Your task to perform on an android device: toggle improve location accuracy Image 0: 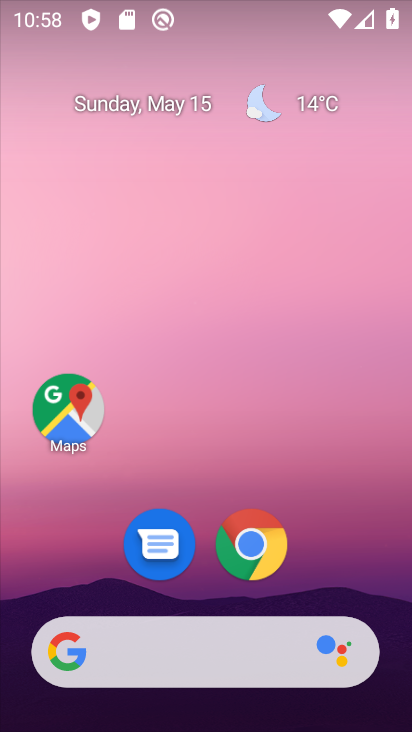
Step 0: drag from (87, 574) to (204, 122)
Your task to perform on an android device: toggle improve location accuracy Image 1: 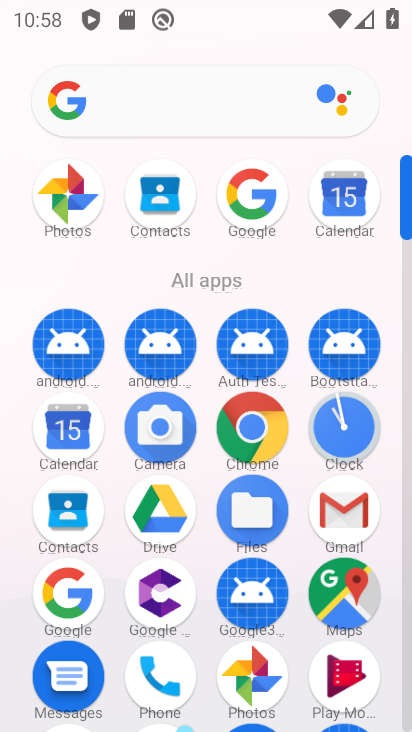
Step 1: drag from (183, 602) to (221, 365)
Your task to perform on an android device: toggle improve location accuracy Image 2: 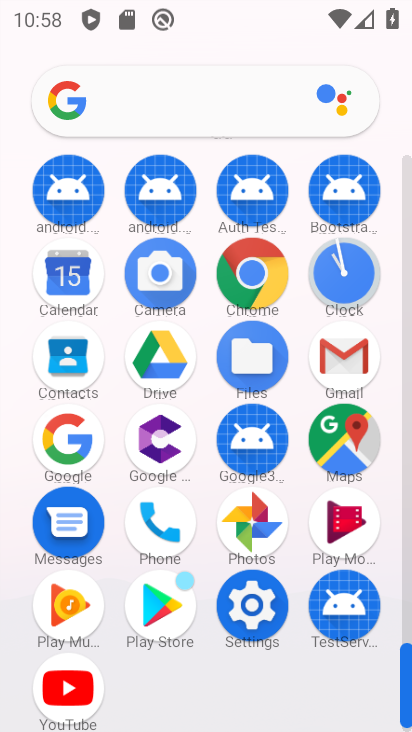
Step 2: click (265, 604)
Your task to perform on an android device: toggle improve location accuracy Image 3: 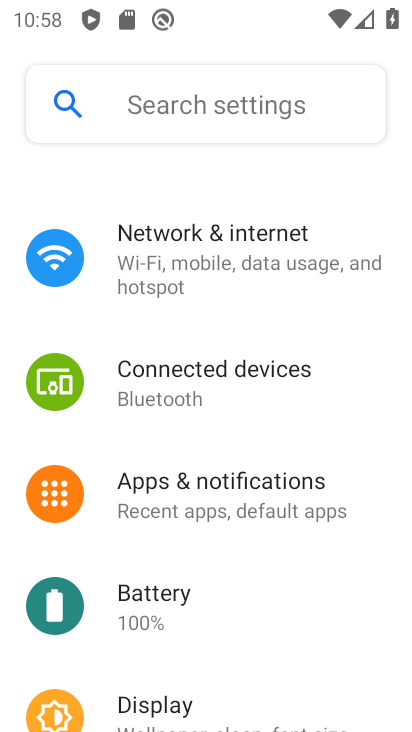
Step 3: drag from (242, 594) to (366, 234)
Your task to perform on an android device: toggle improve location accuracy Image 4: 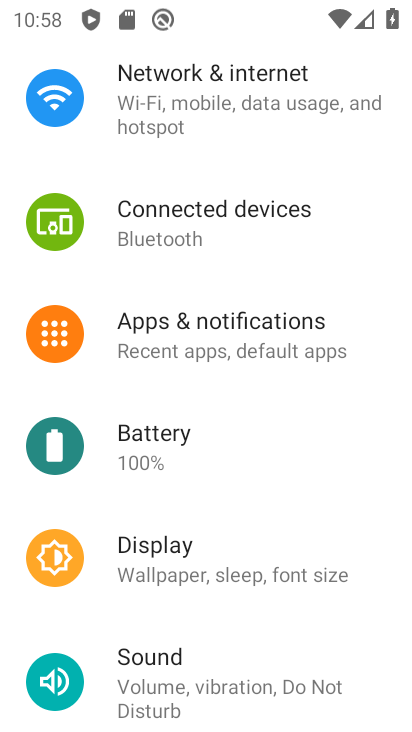
Step 4: drag from (278, 628) to (377, 284)
Your task to perform on an android device: toggle improve location accuracy Image 5: 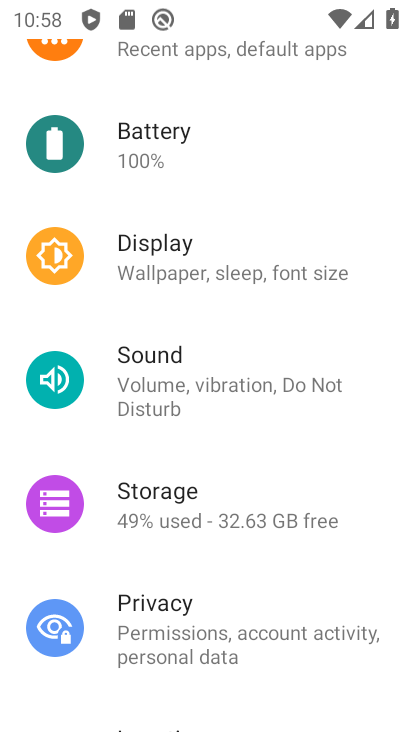
Step 5: drag from (332, 418) to (363, 298)
Your task to perform on an android device: toggle improve location accuracy Image 6: 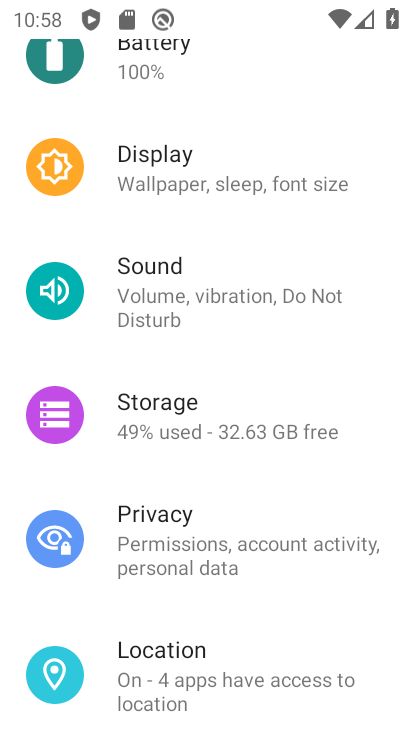
Step 6: drag from (171, 648) to (248, 369)
Your task to perform on an android device: toggle improve location accuracy Image 7: 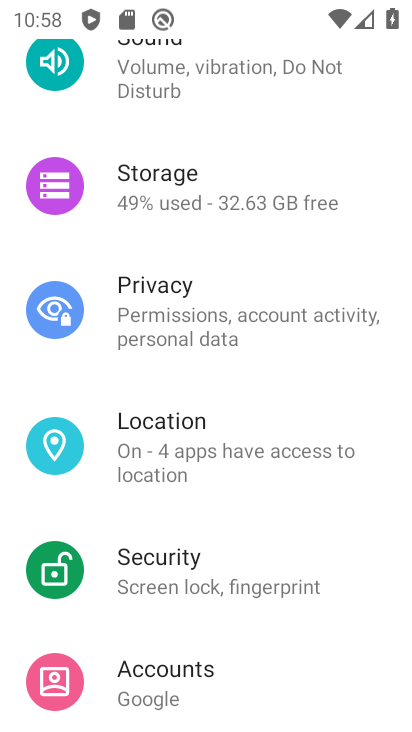
Step 7: drag from (127, 666) to (242, 410)
Your task to perform on an android device: toggle improve location accuracy Image 8: 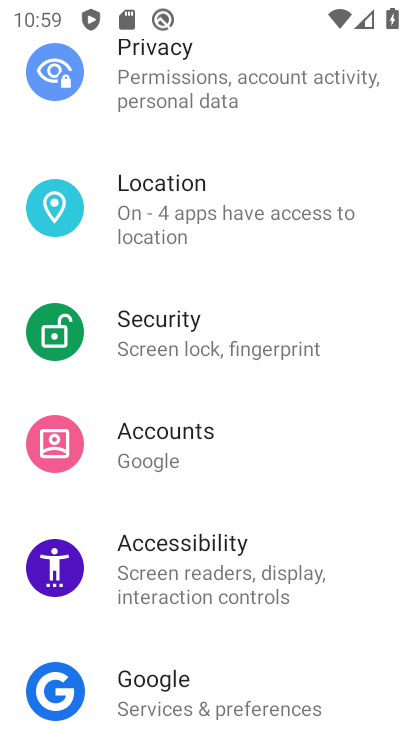
Step 8: click (219, 228)
Your task to perform on an android device: toggle improve location accuracy Image 9: 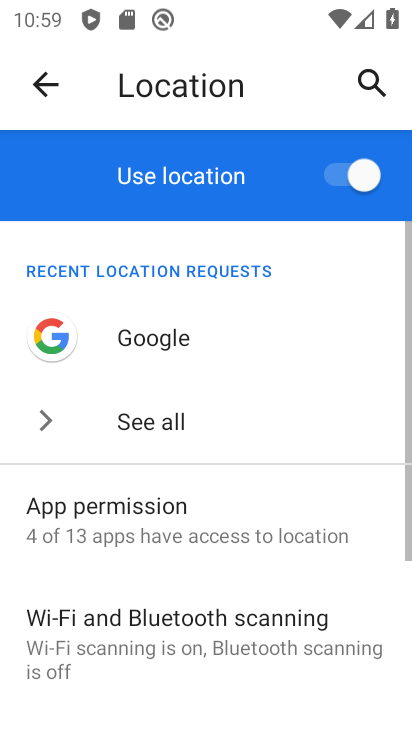
Step 9: drag from (191, 680) to (254, 350)
Your task to perform on an android device: toggle improve location accuracy Image 10: 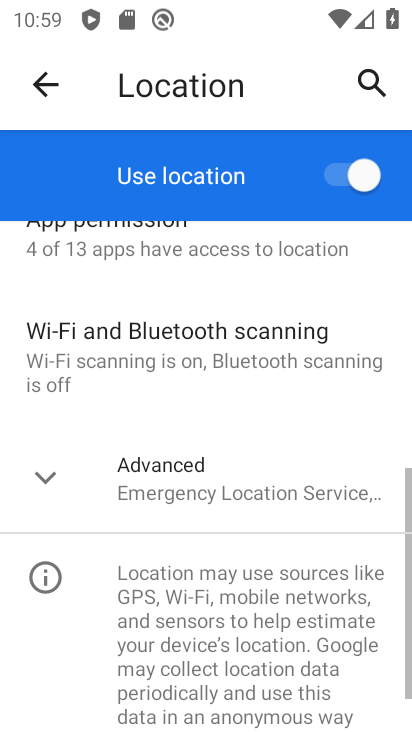
Step 10: click (235, 504)
Your task to perform on an android device: toggle improve location accuracy Image 11: 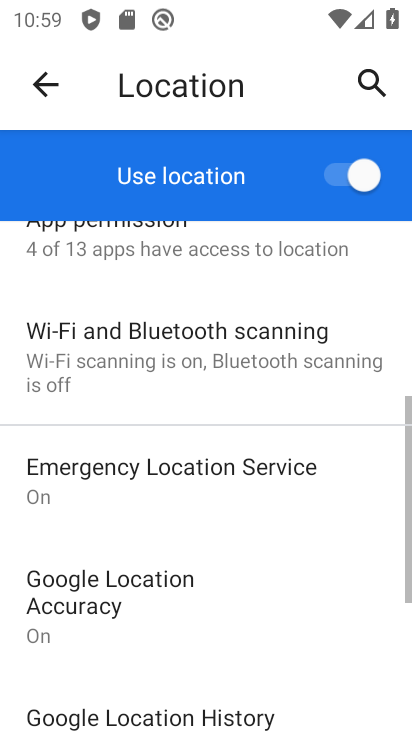
Step 11: drag from (230, 609) to (250, 513)
Your task to perform on an android device: toggle improve location accuracy Image 12: 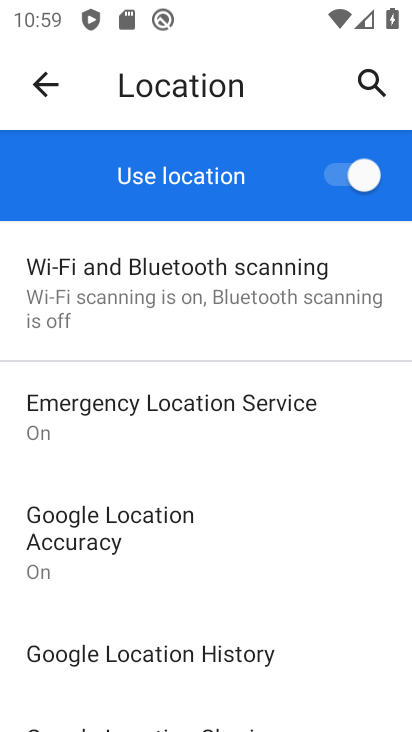
Step 12: drag from (239, 687) to (303, 484)
Your task to perform on an android device: toggle improve location accuracy Image 13: 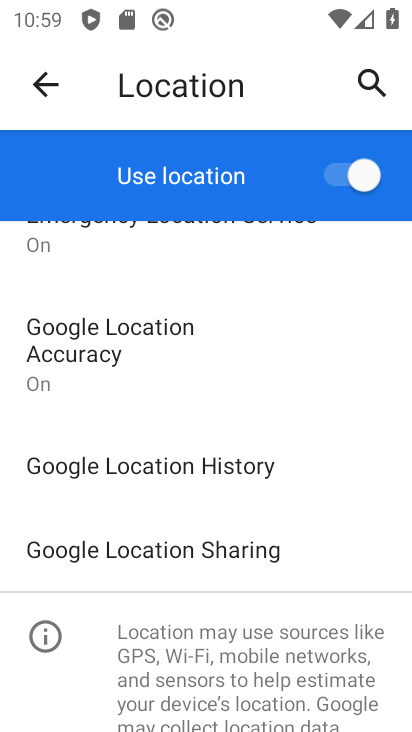
Step 13: click (226, 367)
Your task to perform on an android device: toggle improve location accuracy Image 14: 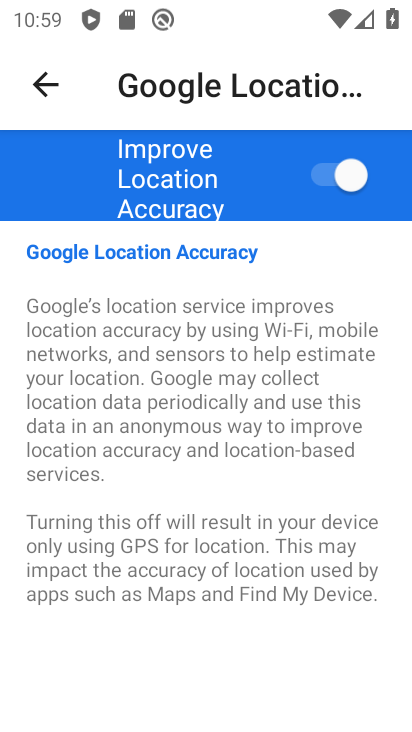
Step 14: click (340, 177)
Your task to perform on an android device: toggle improve location accuracy Image 15: 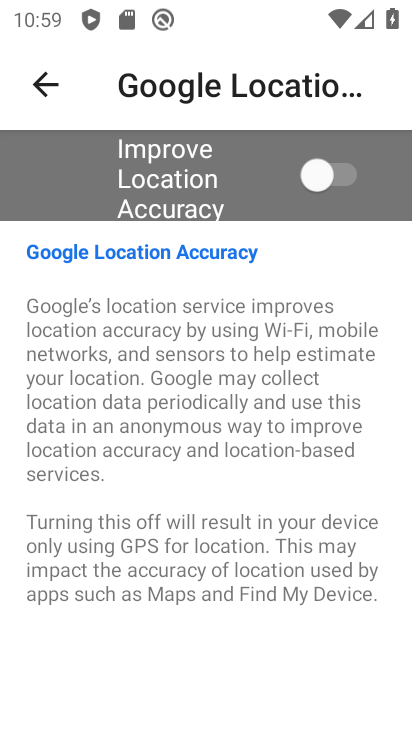
Step 15: task complete